Your task to perform on an android device: open sync settings in chrome Image 0: 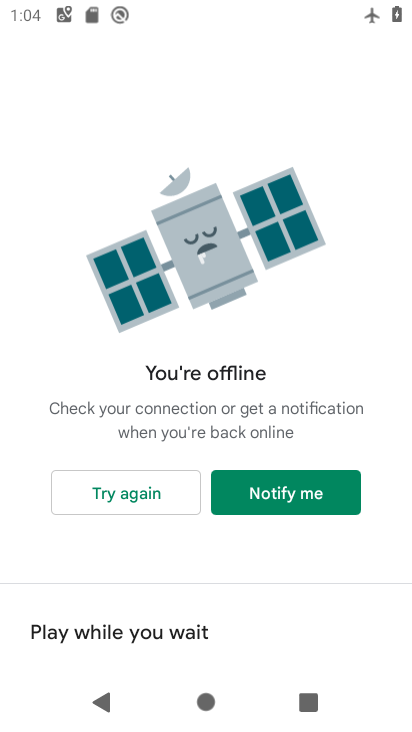
Step 0: press home button
Your task to perform on an android device: open sync settings in chrome Image 1: 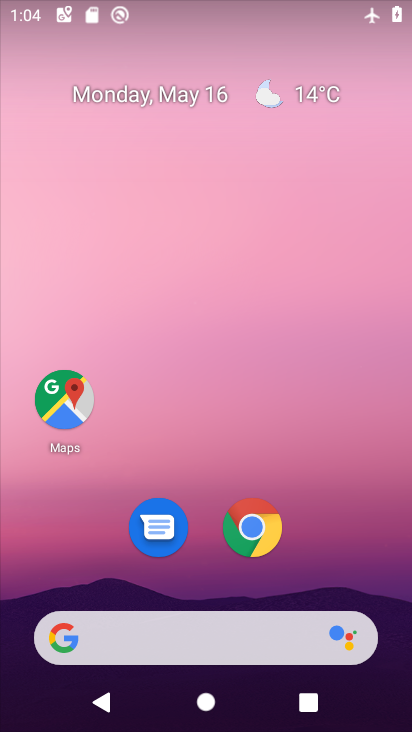
Step 1: click (260, 538)
Your task to perform on an android device: open sync settings in chrome Image 2: 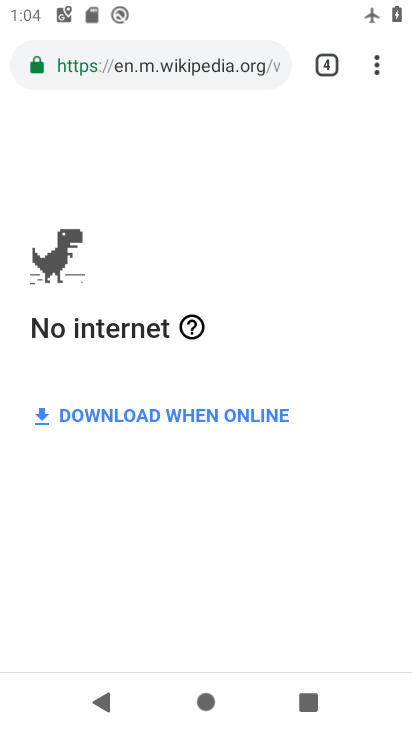
Step 2: click (381, 55)
Your task to perform on an android device: open sync settings in chrome Image 3: 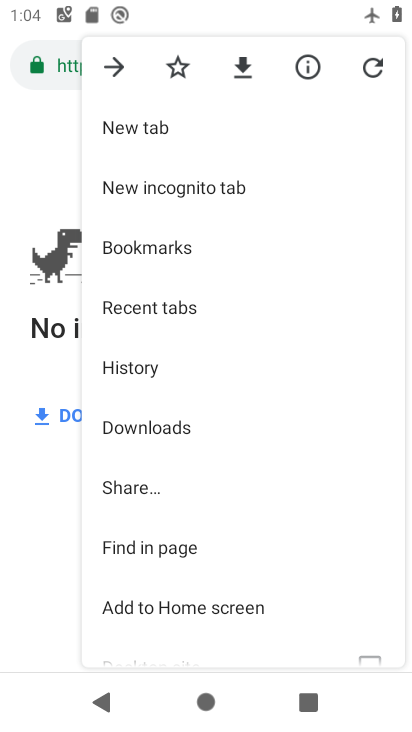
Step 3: drag from (163, 538) to (208, 277)
Your task to perform on an android device: open sync settings in chrome Image 4: 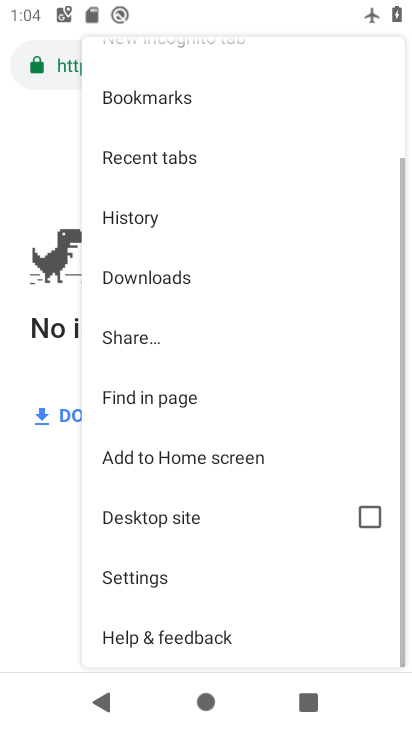
Step 4: click (154, 583)
Your task to perform on an android device: open sync settings in chrome Image 5: 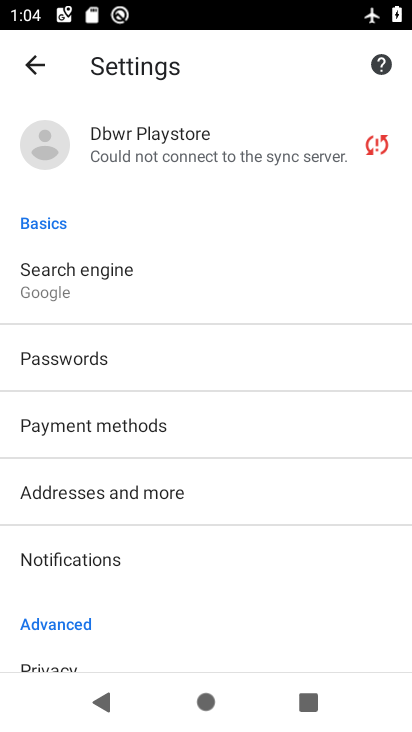
Step 5: click (170, 154)
Your task to perform on an android device: open sync settings in chrome Image 6: 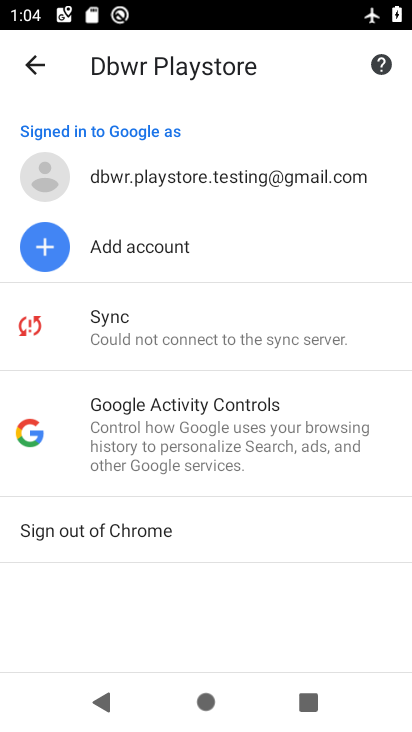
Step 6: click (147, 336)
Your task to perform on an android device: open sync settings in chrome Image 7: 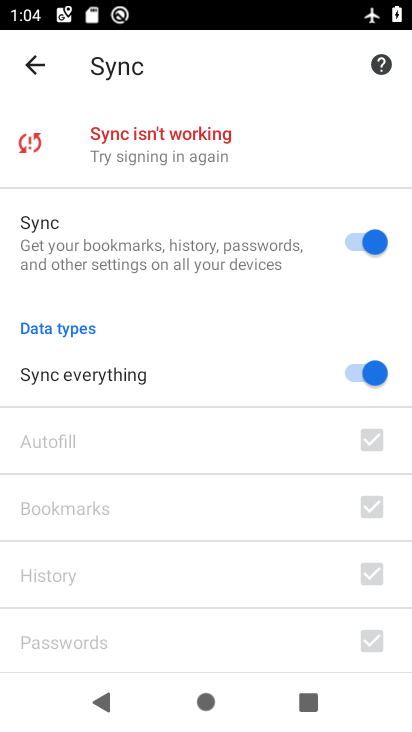
Step 7: task complete